Your task to perform on an android device: What's on my calendar tomorrow? Image 0: 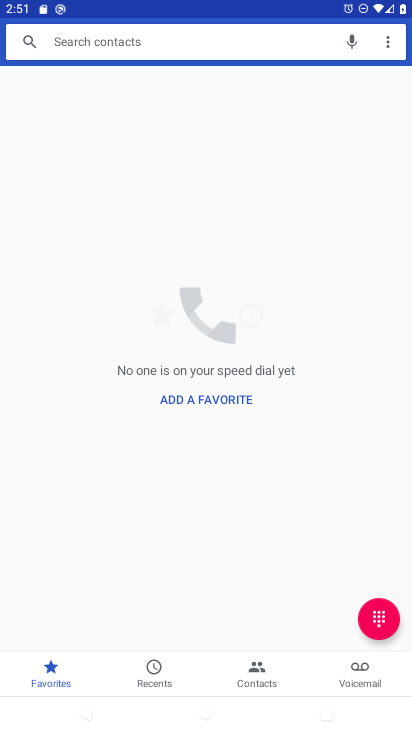
Step 0: press home button
Your task to perform on an android device: What's on my calendar tomorrow? Image 1: 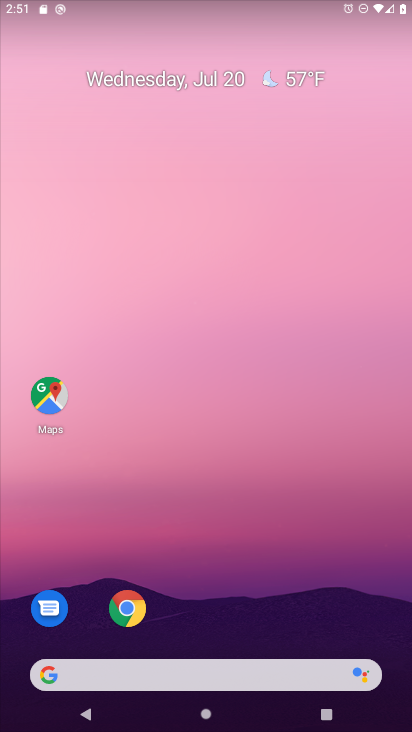
Step 1: drag from (269, 653) to (257, 5)
Your task to perform on an android device: What's on my calendar tomorrow? Image 2: 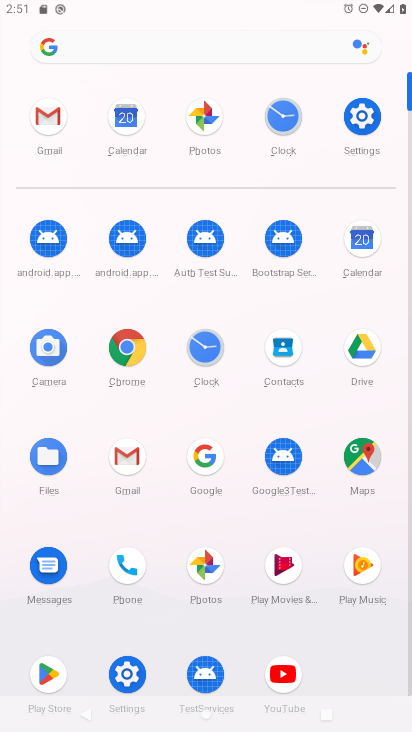
Step 2: click (364, 243)
Your task to perform on an android device: What's on my calendar tomorrow? Image 3: 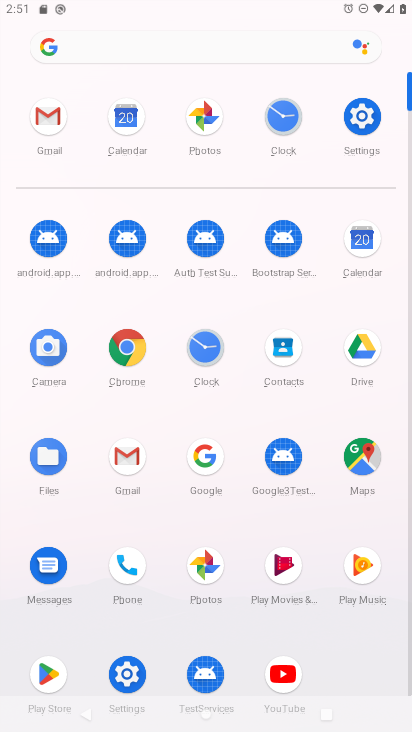
Step 3: click (364, 243)
Your task to perform on an android device: What's on my calendar tomorrow? Image 4: 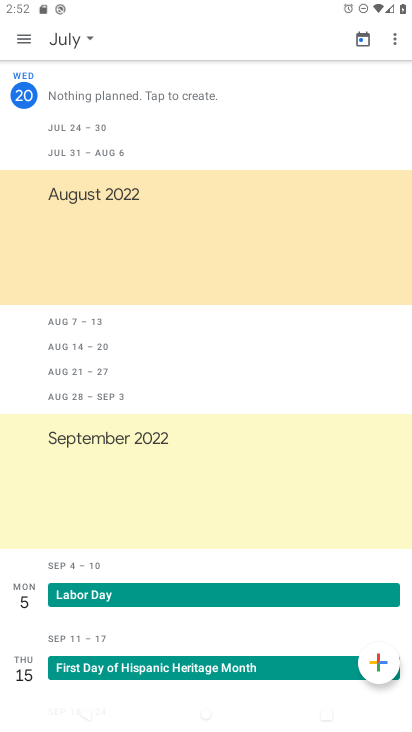
Step 4: click (68, 40)
Your task to perform on an android device: What's on my calendar tomorrow? Image 5: 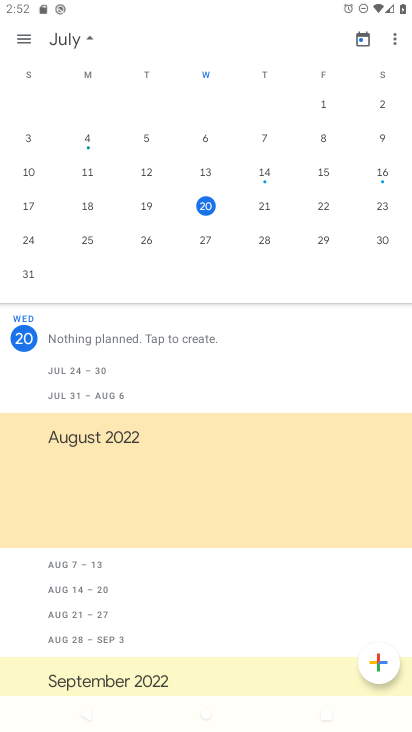
Step 5: click (265, 207)
Your task to perform on an android device: What's on my calendar tomorrow? Image 6: 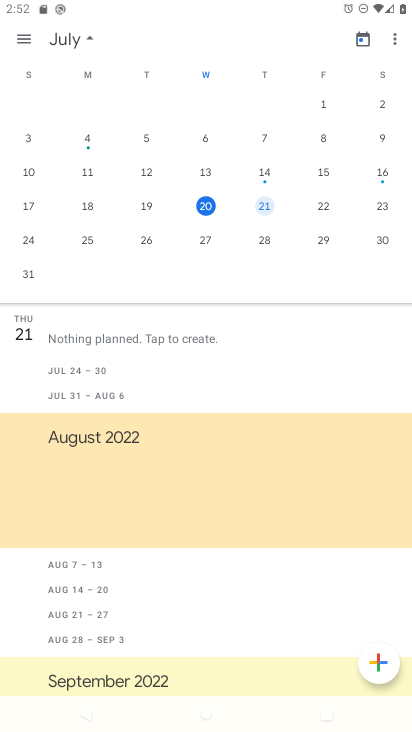
Step 6: task complete